Your task to perform on an android device: turn on bluetooth scan Image 0: 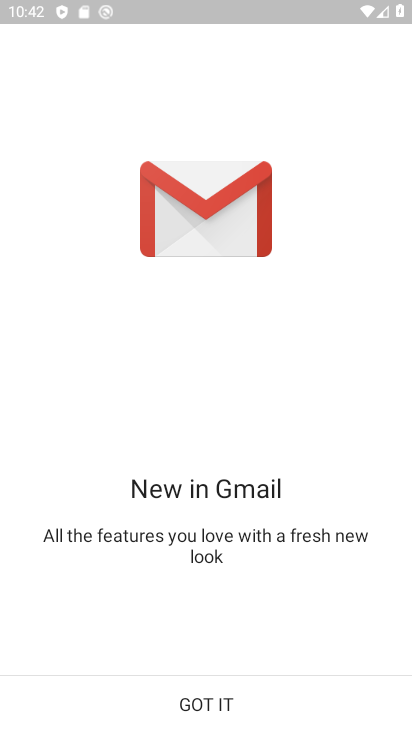
Step 0: press home button
Your task to perform on an android device: turn on bluetooth scan Image 1: 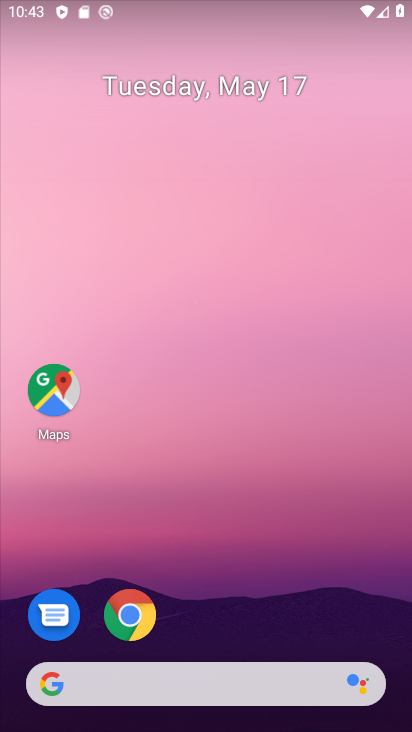
Step 1: drag from (179, 633) to (230, 244)
Your task to perform on an android device: turn on bluetooth scan Image 2: 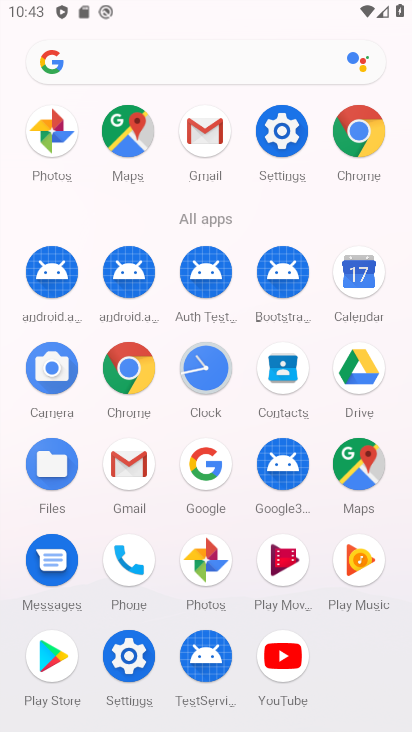
Step 2: click (126, 652)
Your task to perform on an android device: turn on bluetooth scan Image 3: 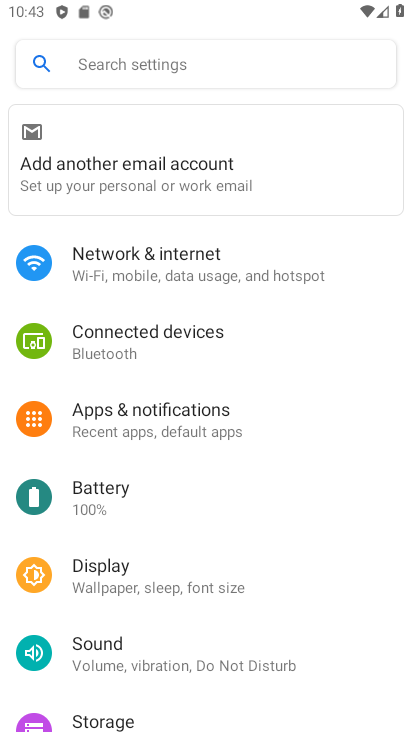
Step 3: drag from (189, 503) to (230, 207)
Your task to perform on an android device: turn on bluetooth scan Image 4: 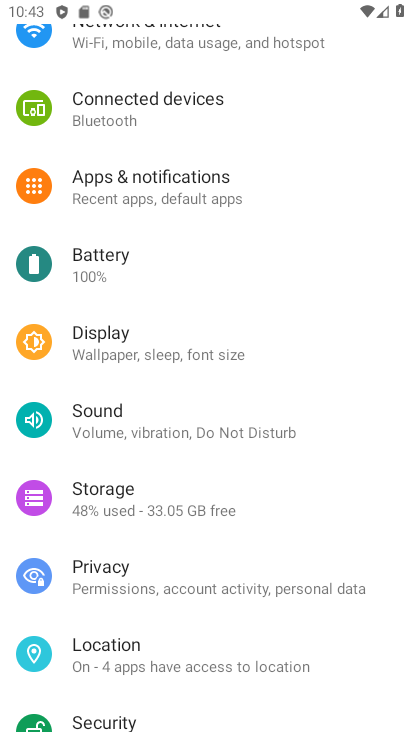
Step 4: click (181, 659)
Your task to perform on an android device: turn on bluetooth scan Image 5: 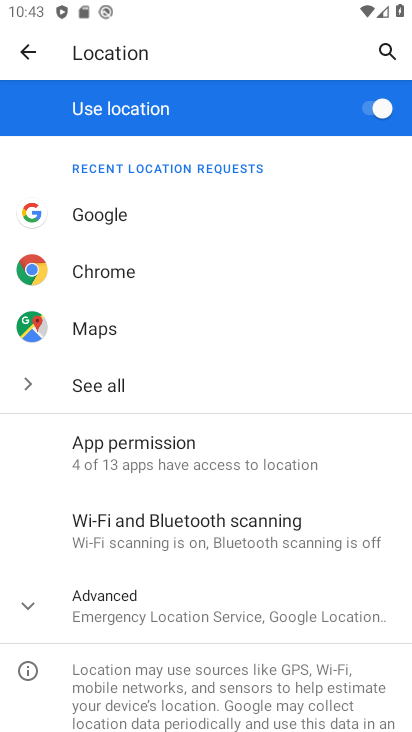
Step 5: click (180, 528)
Your task to perform on an android device: turn on bluetooth scan Image 6: 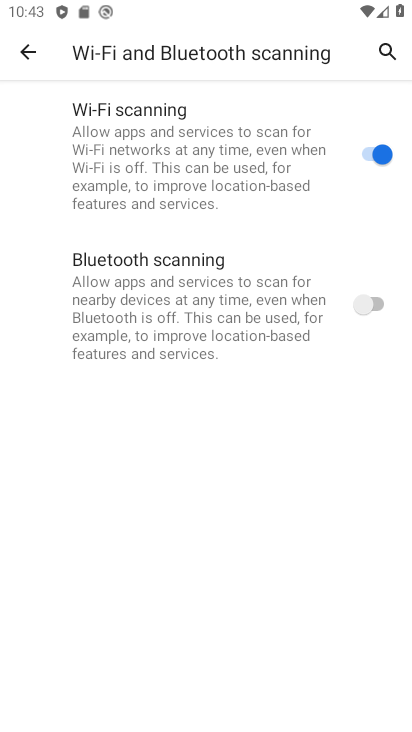
Step 6: click (367, 303)
Your task to perform on an android device: turn on bluetooth scan Image 7: 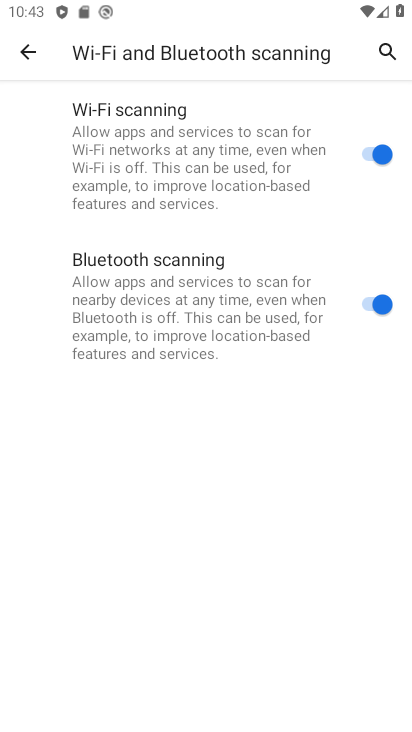
Step 7: task complete